Your task to perform on an android device: toggle show notifications on the lock screen Image 0: 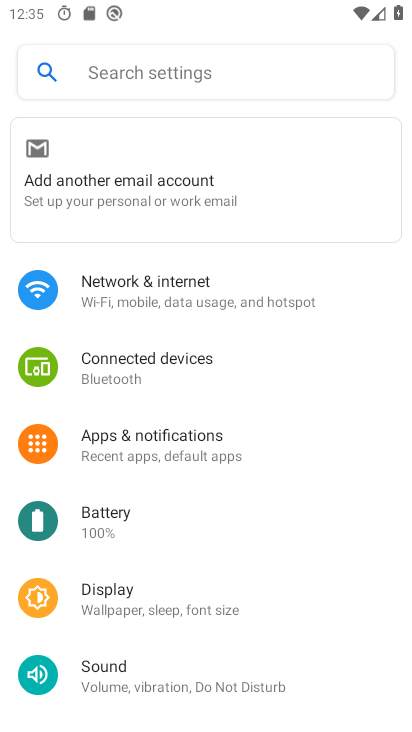
Step 0: press home button
Your task to perform on an android device: toggle show notifications on the lock screen Image 1: 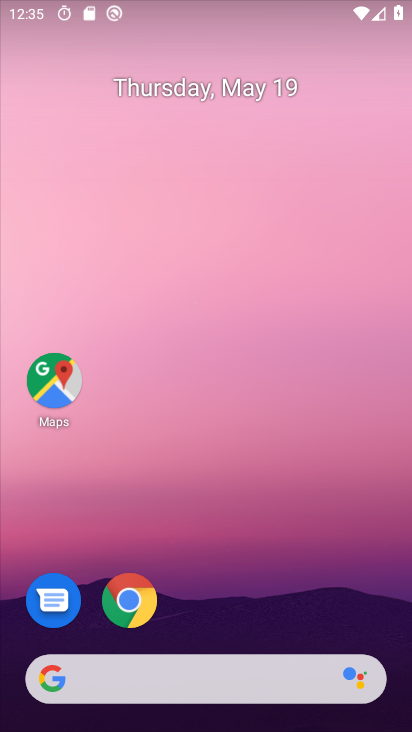
Step 1: drag from (311, 591) to (194, 48)
Your task to perform on an android device: toggle show notifications on the lock screen Image 2: 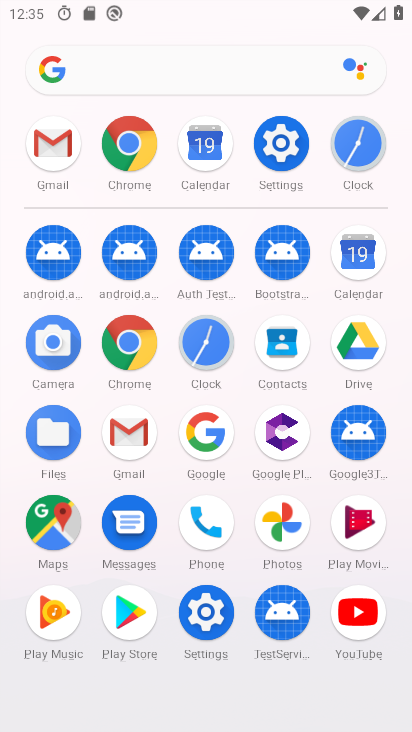
Step 2: click (284, 155)
Your task to perform on an android device: toggle show notifications on the lock screen Image 3: 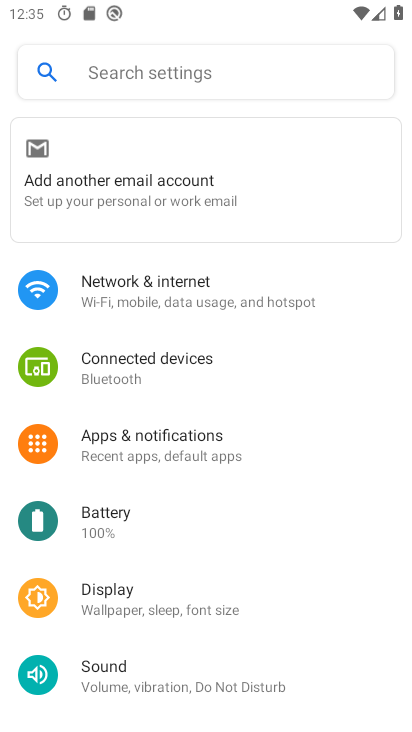
Step 3: click (172, 447)
Your task to perform on an android device: toggle show notifications on the lock screen Image 4: 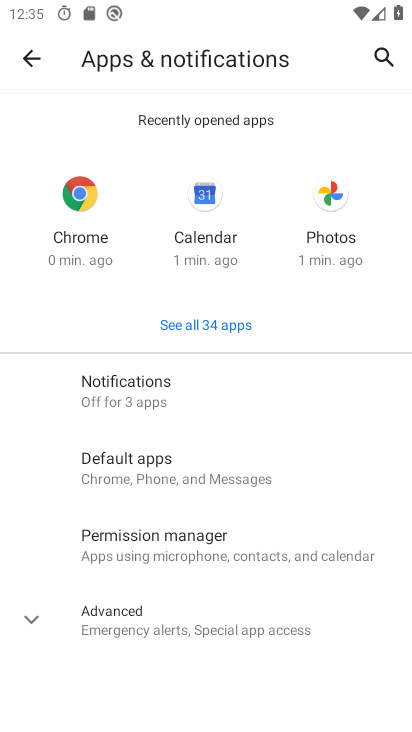
Step 4: click (148, 382)
Your task to perform on an android device: toggle show notifications on the lock screen Image 5: 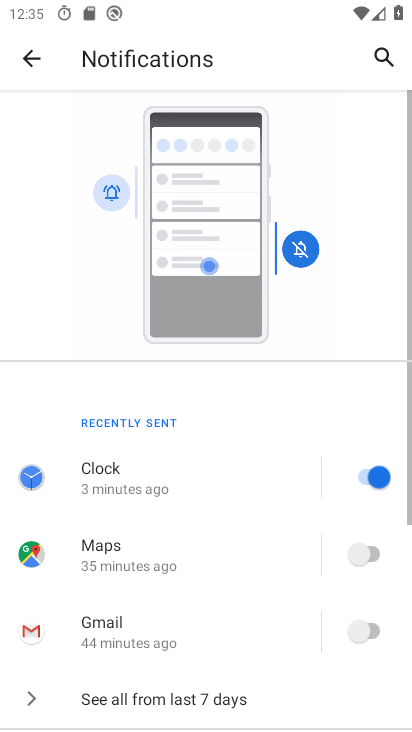
Step 5: drag from (243, 644) to (200, 185)
Your task to perform on an android device: toggle show notifications on the lock screen Image 6: 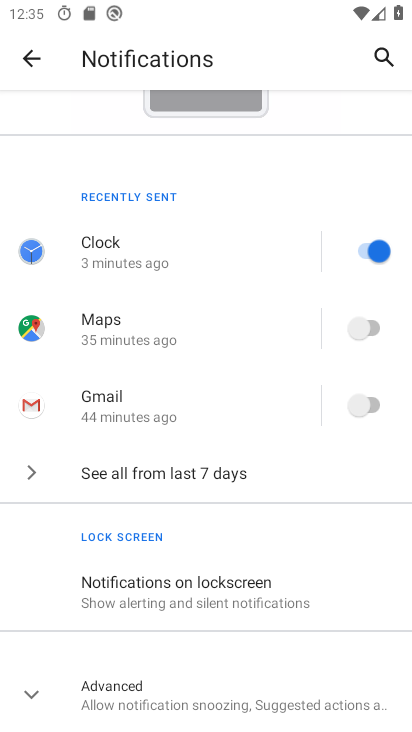
Step 6: click (198, 578)
Your task to perform on an android device: toggle show notifications on the lock screen Image 7: 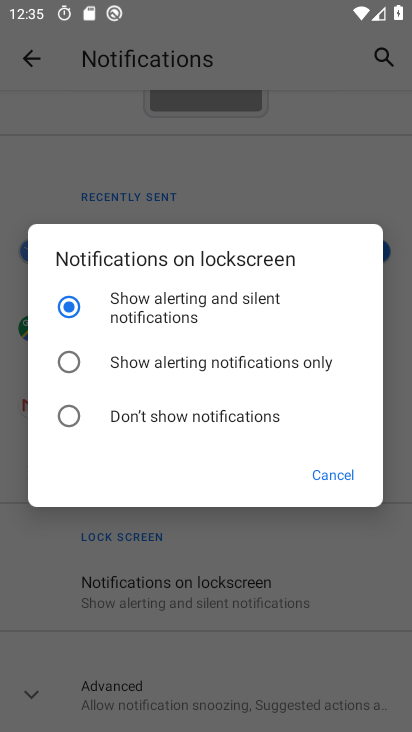
Step 7: click (176, 414)
Your task to perform on an android device: toggle show notifications on the lock screen Image 8: 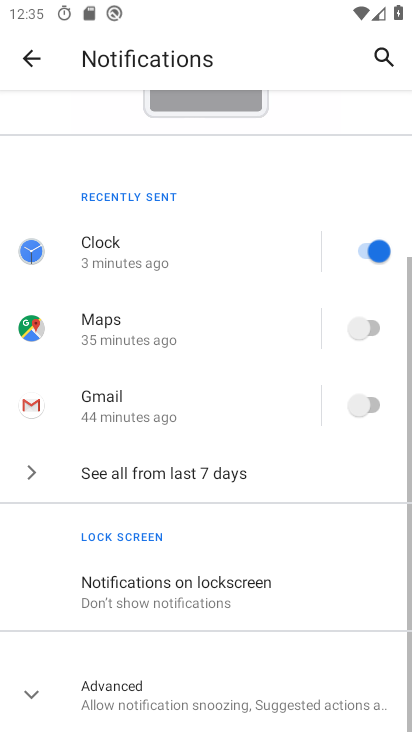
Step 8: task complete